Your task to perform on an android device: turn smart compose on in the gmail app Image 0: 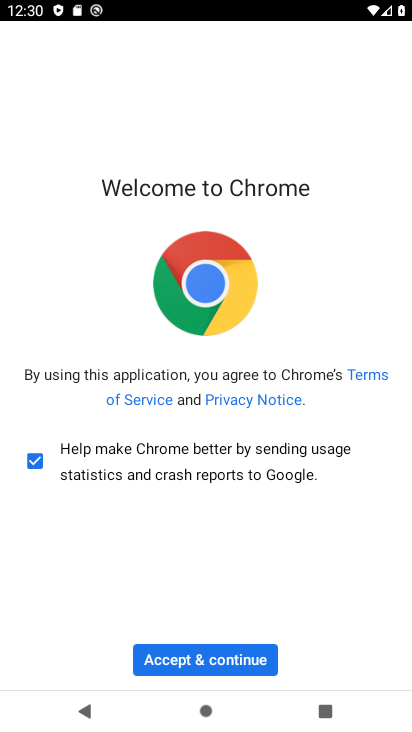
Step 0: press home button
Your task to perform on an android device: turn smart compose on in the gmail app Image 1: 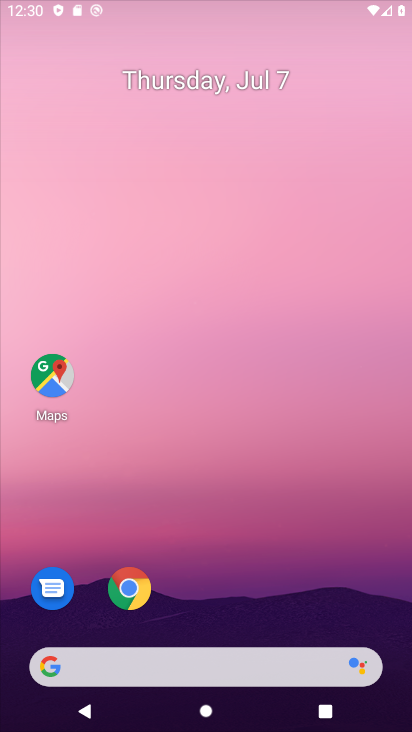
Step 1: drag from (252, 690) to (297, 74)
Your task to perform on an android device: turn smart compose on in the gmail app Image 2: 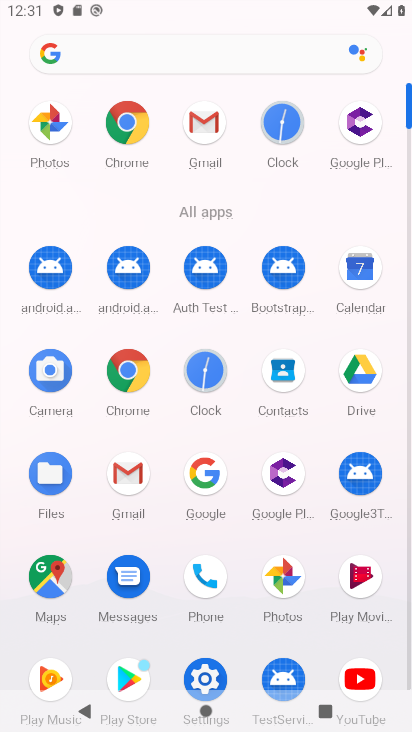
Step 2: click (122, 466)
Your task to perform on an android device: turn smart compose on in the gmail app Image 3: 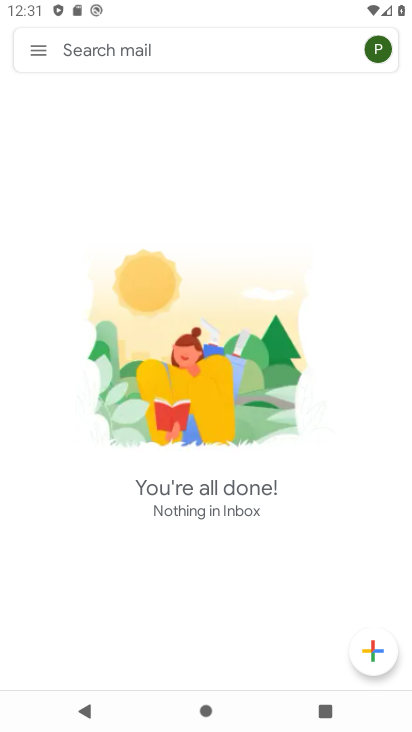
Step 3: click (51, 49)
Your task to perform on an android device: turn smart compose on in the gmail app Image 4: 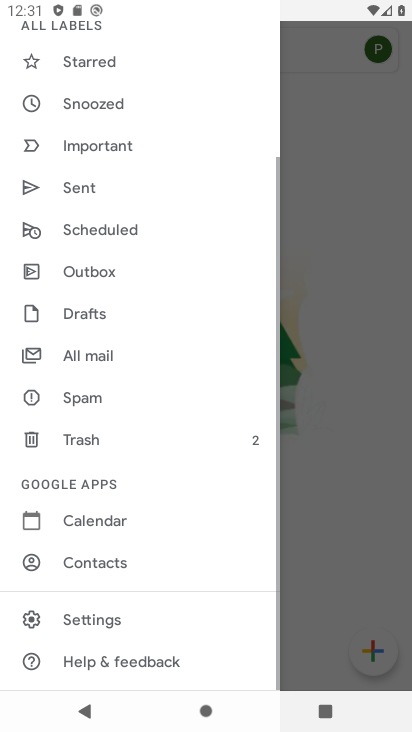
Step 4: click (91, 626)
Your task to perform on an android device: turn smart compose on in the gmail app Image 5: 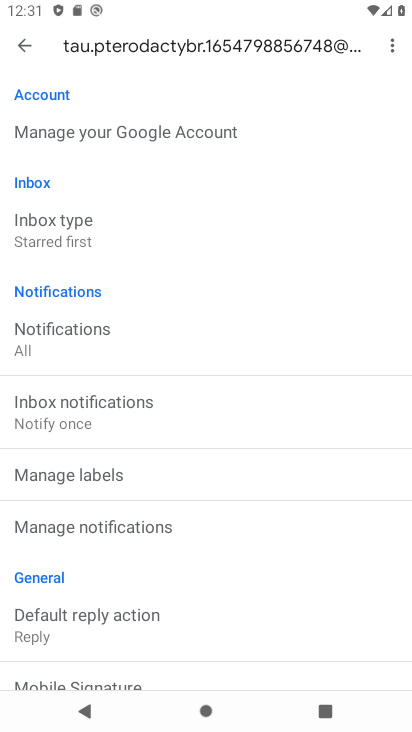
Step 5: task complete